Your task to perform on an android device: Show me recent news Image 0: 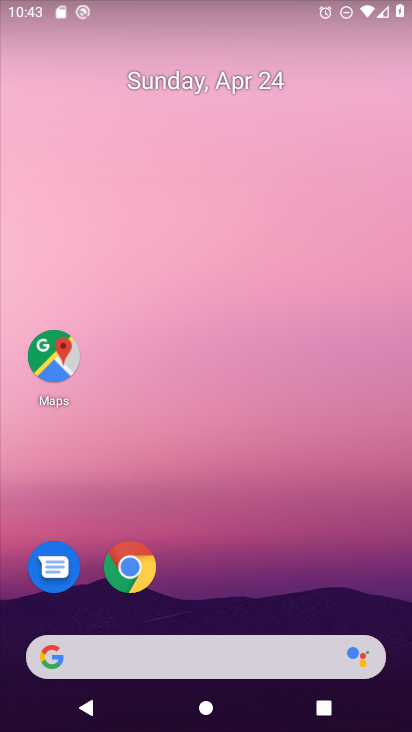
Step 0: click (133, 564)
Your task to perform on an android device: Show me recent news Image 1: 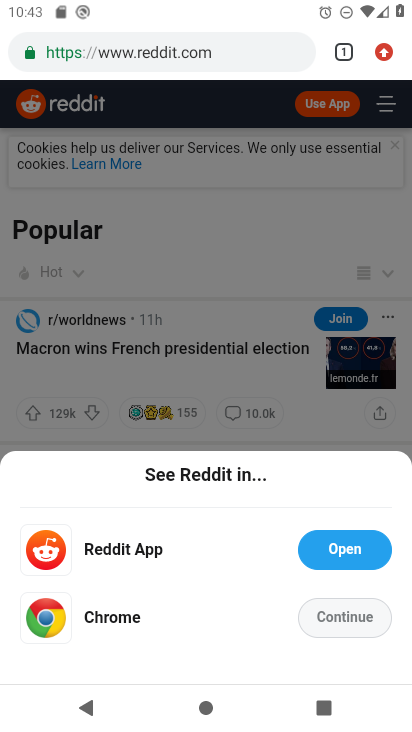
Step 1: click (206, 45)
Your task to perform on an android device: Show me recent news Image 2: 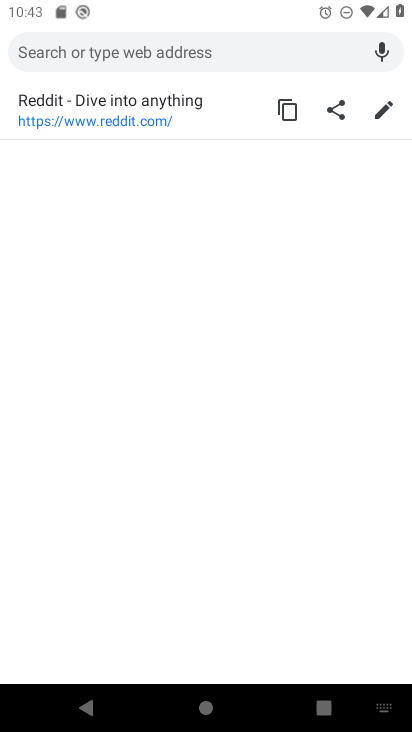
Step 2: type "recent news"
Your task to perform on an android device: Show me recent news Image 3: 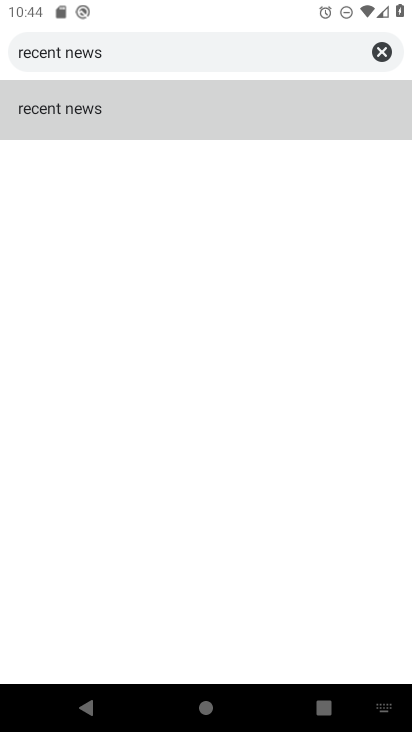
Step 3: click (164, 114)
Your task to perform on an android device: Show me recent news Image 4: 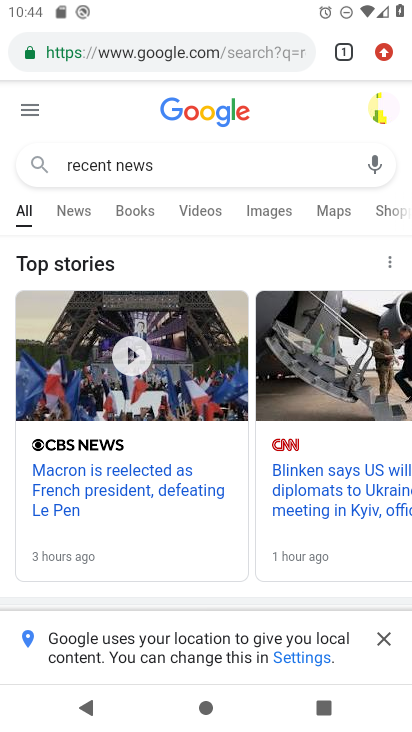
Step 4: task complete